Your task to perform on an android device: Open wifi settings Image 0: 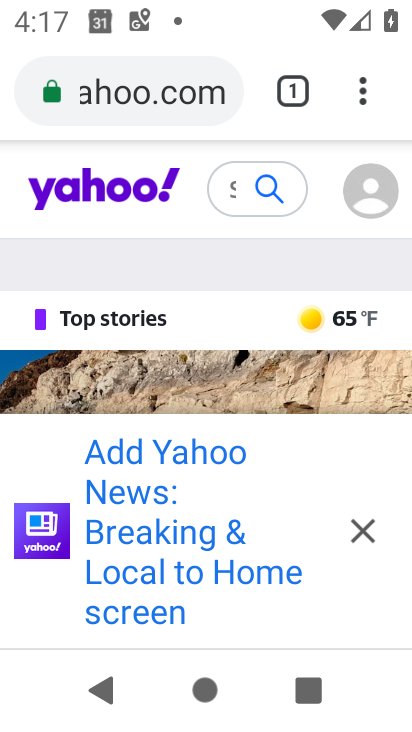
Step 0: press home button
Your task to perform on an android device: Open wifi settings Image 1: 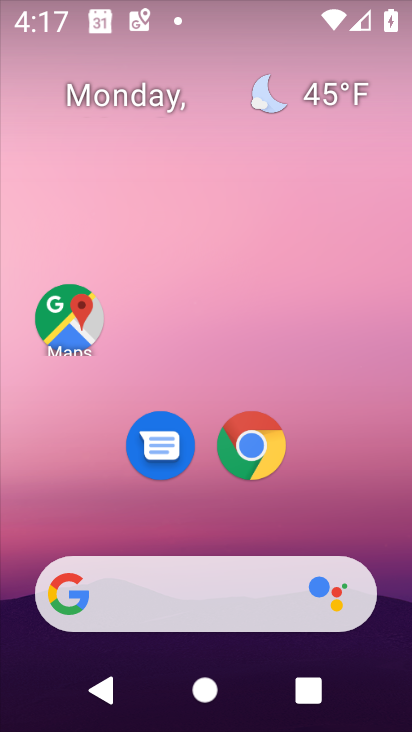
Step 1: drag from (263, 514) to (234, 1)
Your task to perform on an android device: Open wifi settings Image 2: 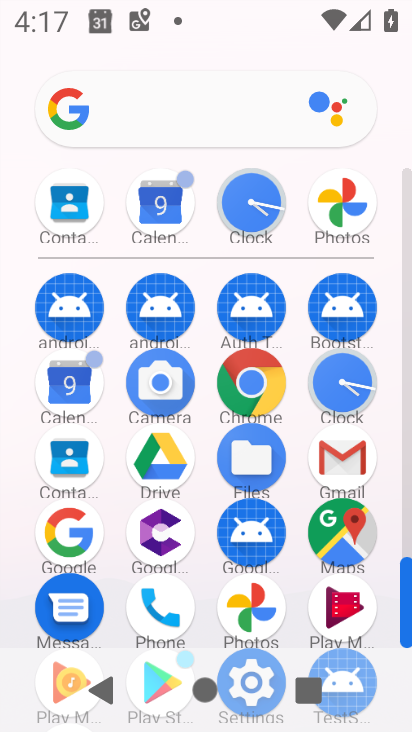
Step 2: drag from (268, 610) to (268, 183)
Your task to perform on an android device: Open wifi settings Image 3: 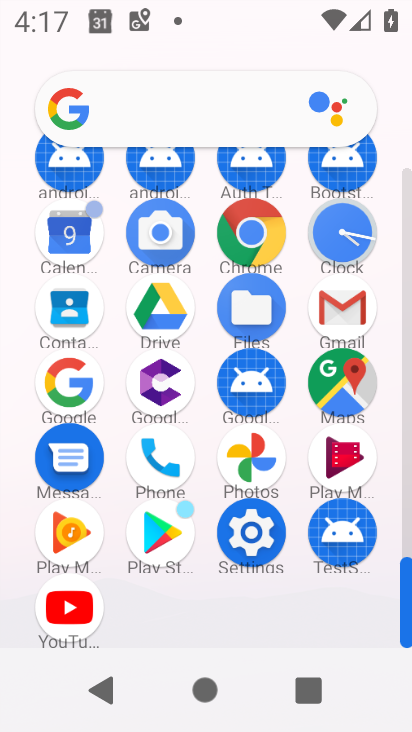
Step 3: click (241, 549)
Your task to perform on an android device: Open wifi settings Image 4: 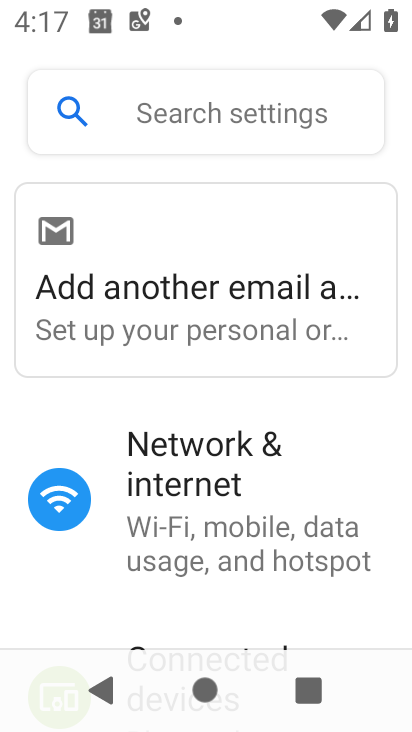
Step 4: click (191, 544)
Your task to perform on an android device: Open wifi settings Image 5: 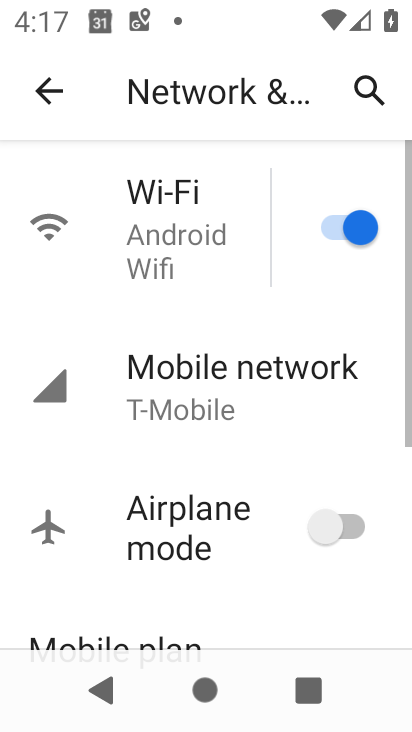
Step 5: click (95, 189)
Your task to perform on an android device: Open wifi settings Image 6: 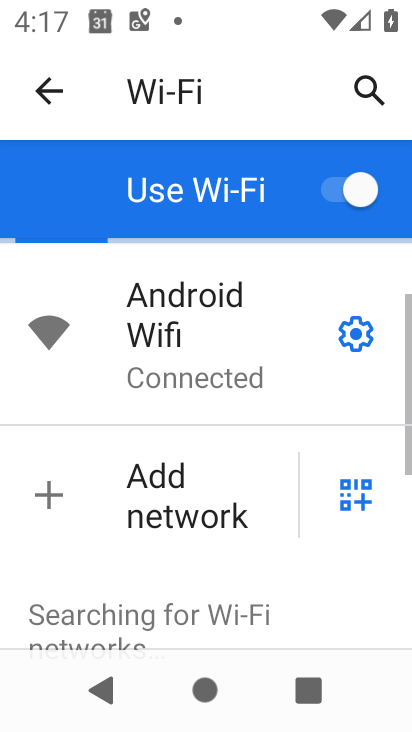
Step 6: task complete